Your task to perform on an android device: empty trash in google photos Image 0: 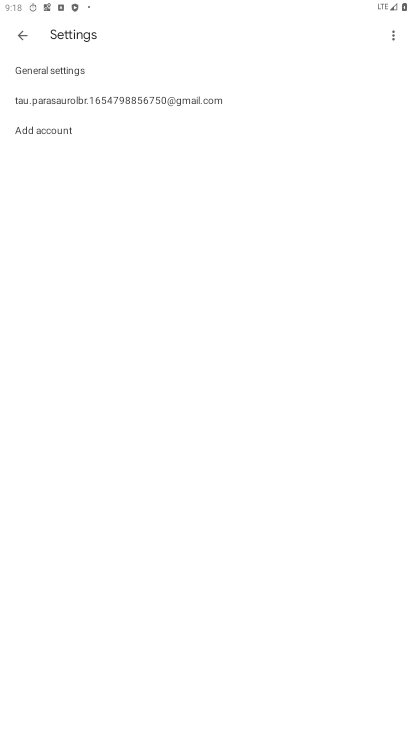
Step 0: press home button
Your task to perform on an android device: empty trash in google photos Image 1: 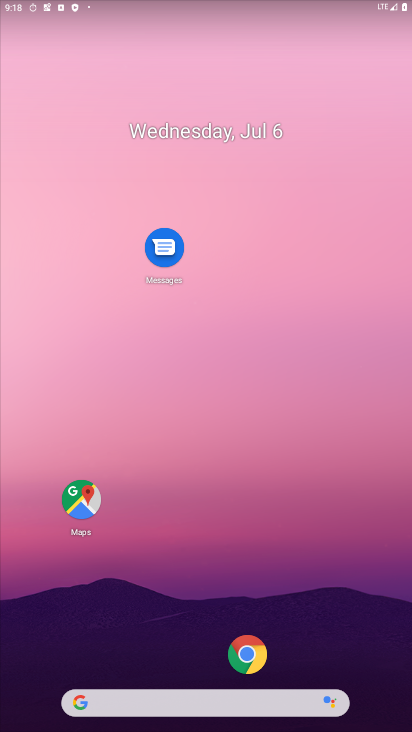
Step 1: drag from (190, 651) to (247, 17)
Your task to perform on an android device: empty trash in google photos Image 2: 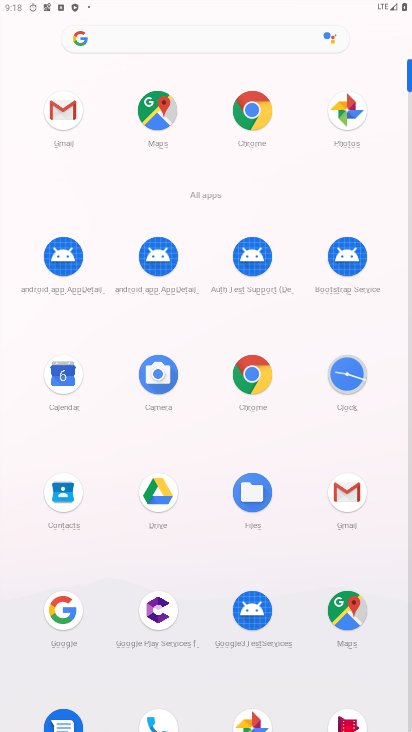
Step 2: click (348, 105)
Your task to perform on an android device: empty trash in google photos Image 3: 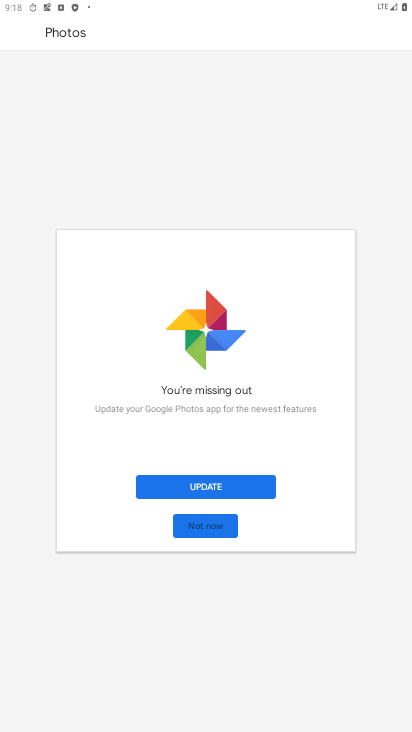
Step 3: click (190, 521)
Your task to perform on an android device: empty trash in google photos Image 4: 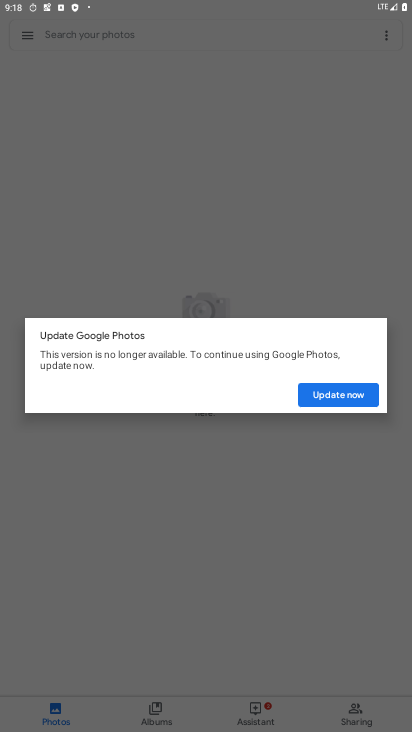
Step 4: click (362, 393)
Your task to perform on an android device: empty trash in google photos Image 5: 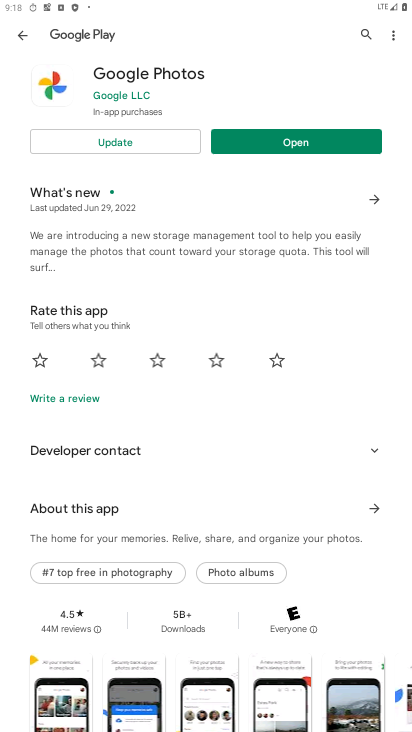
Step 5: click (269, 136)
Your task to perform on an android device: empty trash in google photos Image 6: 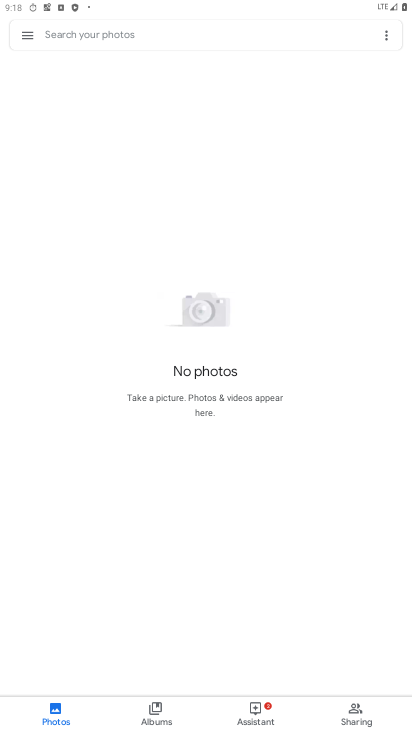
Step 6: click (32, 38)
Your task to perform on an android device: empty trash in google photos Image 7: 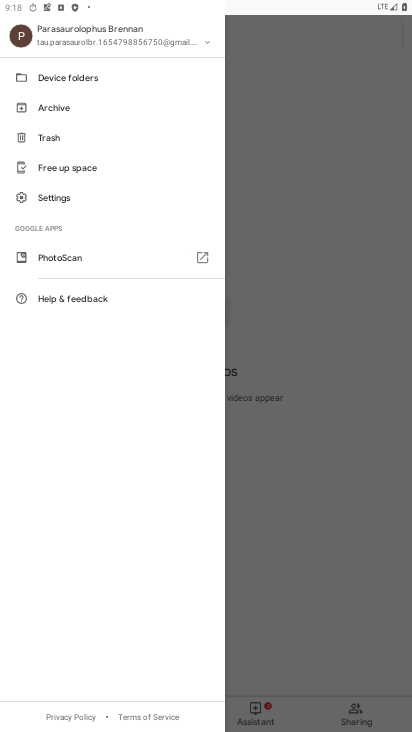
Step 7: click (70, 142)
Your task to perform on an android device: empty trash in google photos Image 8: 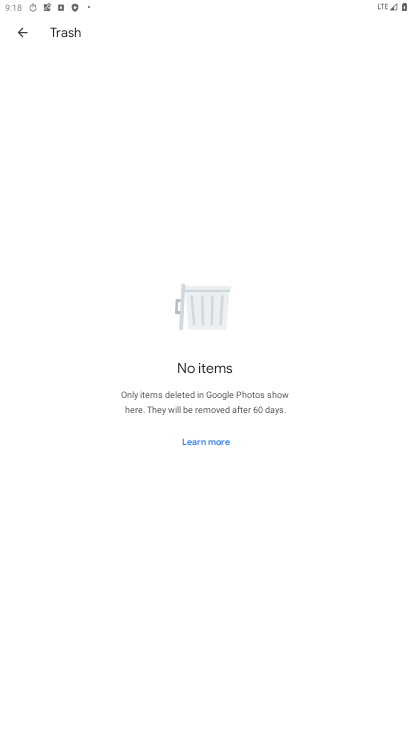
Step 8: task complete